Your task to perform on an android device: check storage Image 0: 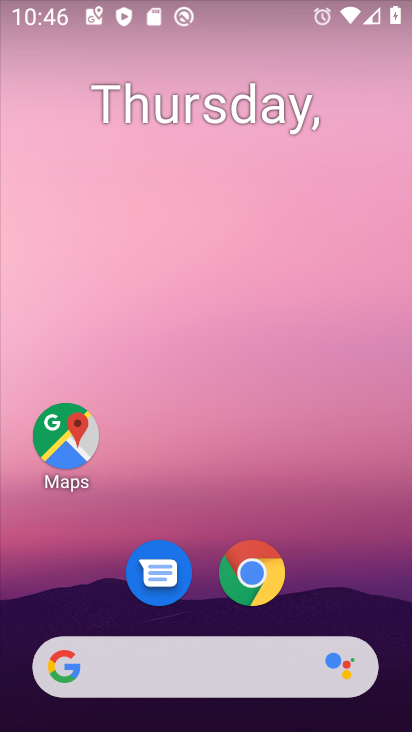
Step 0: drag from (340, 611) to (355, 209)
Your task to perform on an android device: check storage Image 1: 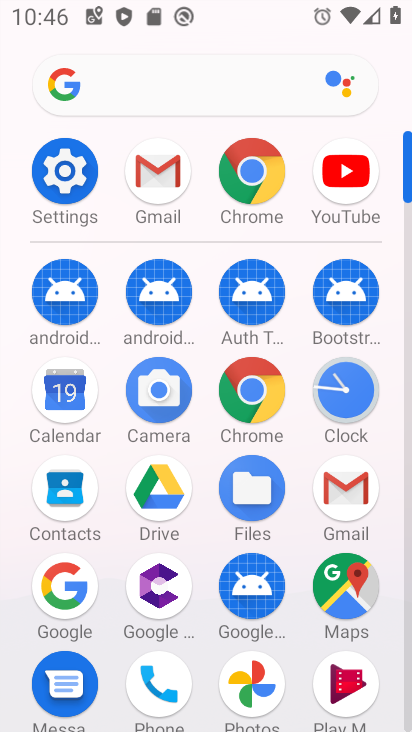
Step 1: click (77, 186)
Your task to perform on an android device: check storage Image 2: 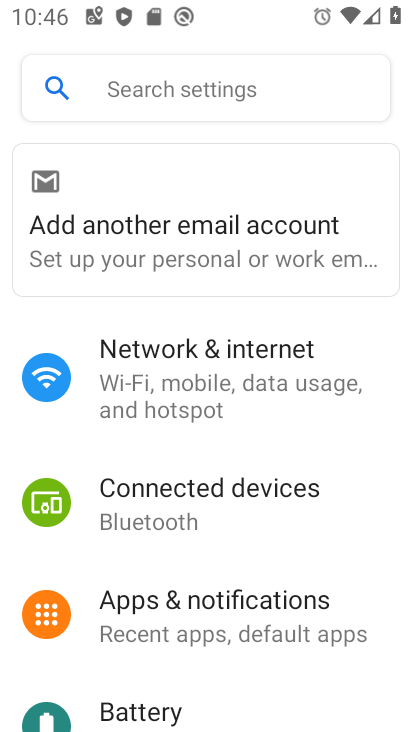
Step 2: drag from (208, 570) to (264, 222)
Your task to perform on an android device: check storage Image 3: 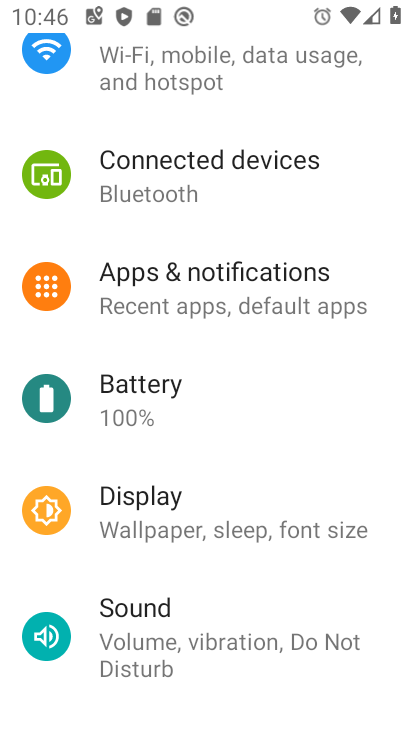
Step 3: drag from (206, 594) to (294, 249)
Your task to perform on an android device: check storage Image 4: 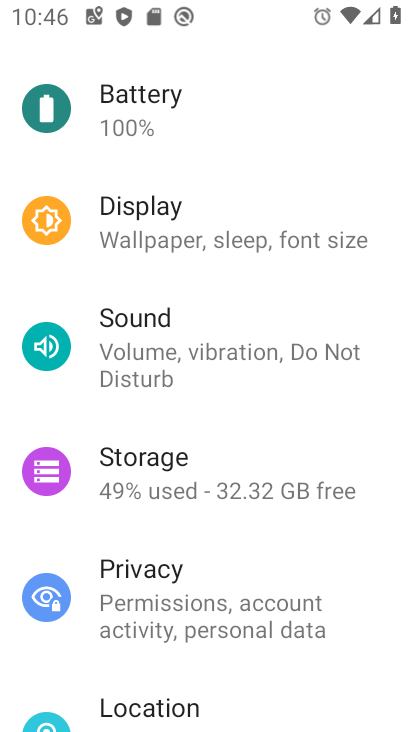
Step 4: click (298, 243)
Your task to perform on an android device: check storage Image 5: 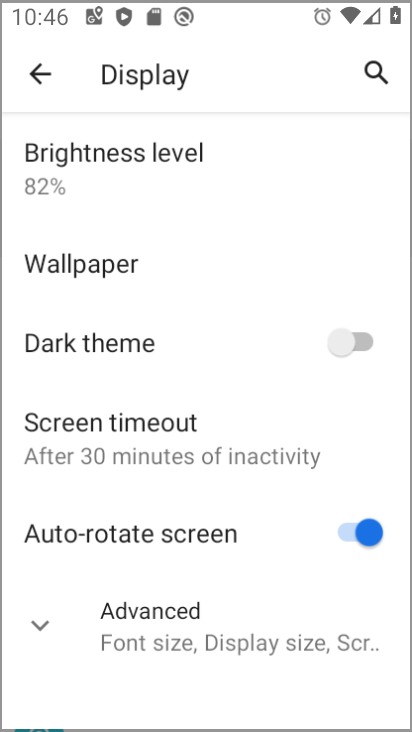
Step 5: click (203, 424)
Your task to perform on an android device: check storage Image 6: 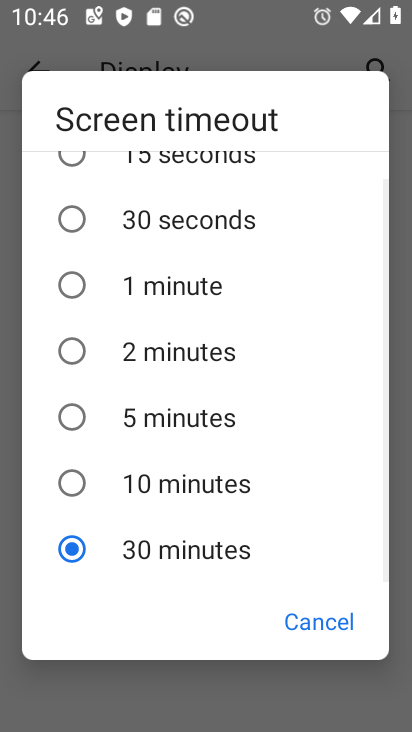
Step 6: click (301, 621)
Your task to perform on an android device: check storage Image 7: 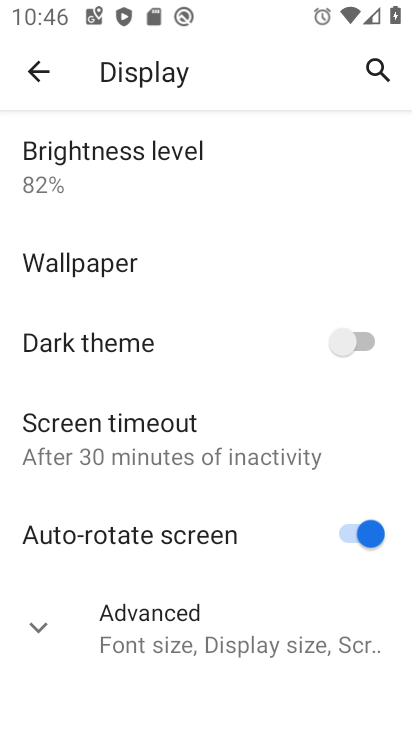
Step 7: click (45, 78)
Your task to perform on an android device: check storage Image 8: 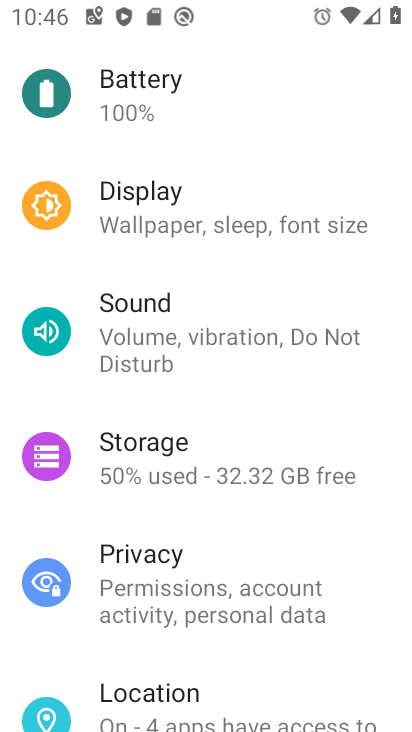
Step 8: drag from (205, 639) to (207, 226)
Your task to perform on an android device: check storage Image 9: 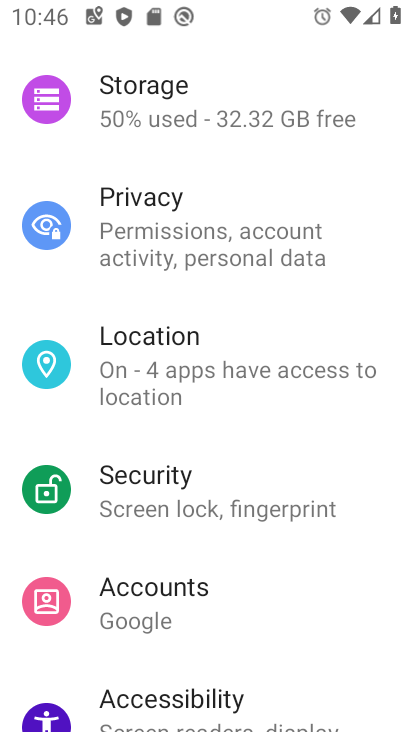
Step 9: click (209, 119)
Your task to perform on an android device: check storage Image 10: 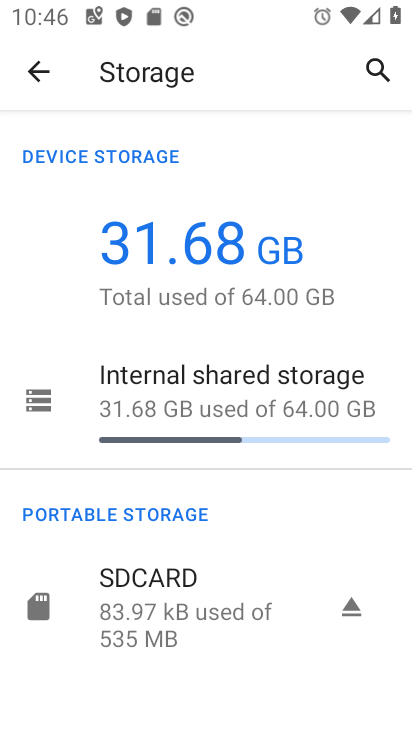
Step 10: task complete